Your task to perform on an android device: Set the phone to "Do not disturb". Image 0: 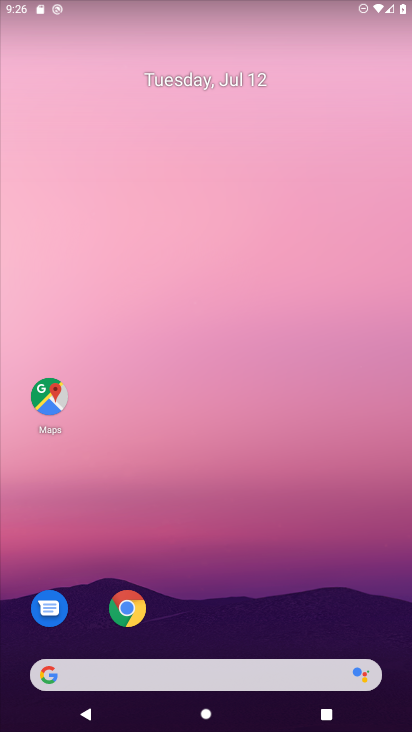
Step 0: drag from (161, 8) to (226, 470)
Your task to perform on an android device: Set the phone to "Do not disturb". Image 1: 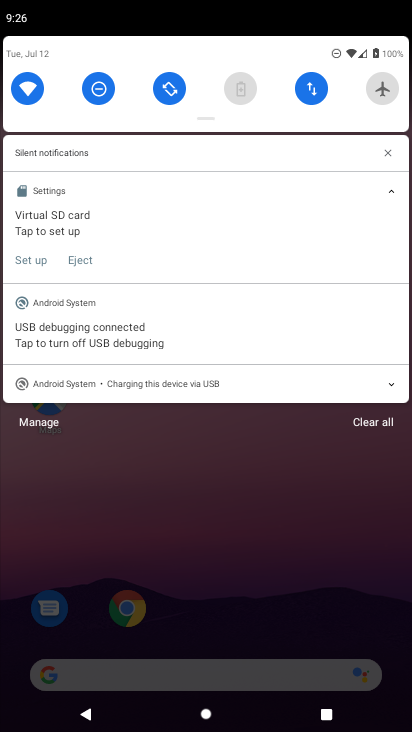
Step 1: task complete